Your task to perform on an android device: Search for sushi restaurants on Maps Image 0: 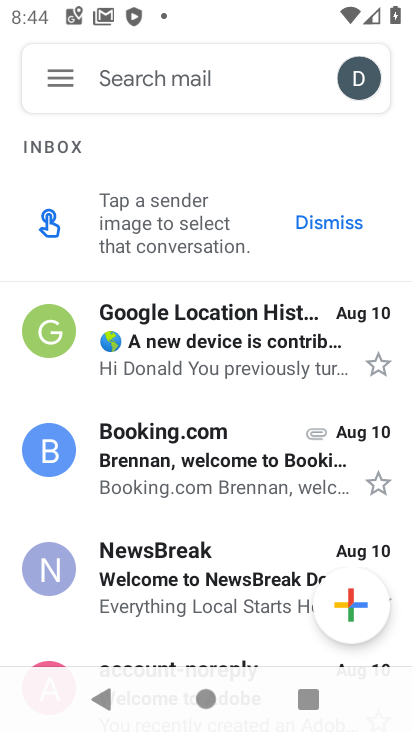
Step 0: press home button
Your task to perform on an android device: Search for sushi restaurants on Maps Image 1: 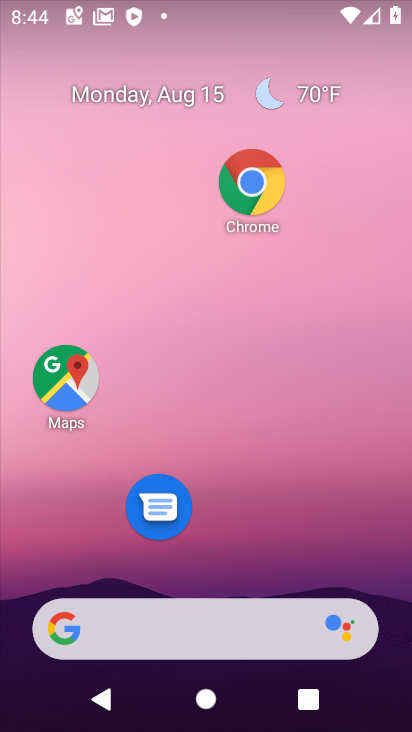
Step 1: drag from (269, 590) to (246, 92)
Your task to perform on an android device: Search for sushi restaurants on Maps Image 2: 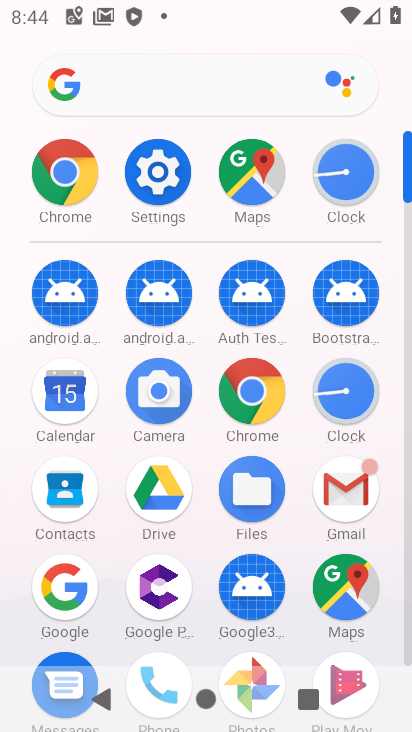
Step 2: click (276, 156)
Your task to perform on an android device: Search for sushi restaurants on Maps Image 3: 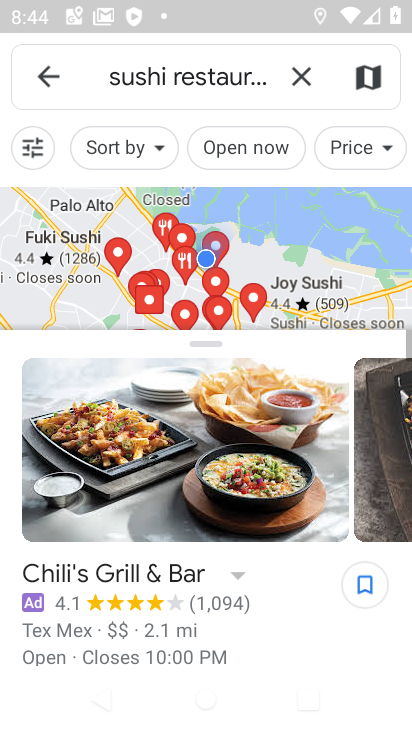
Step 3: click (298, 65)
Your task to perform on an android device: Search for sushi restaurants on Maps Image 4: 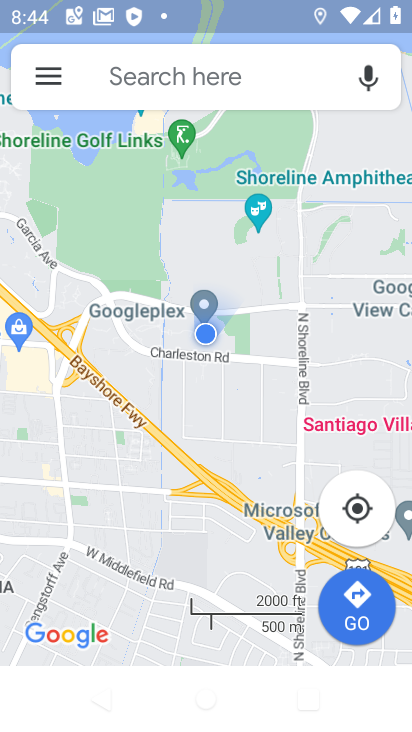
Step 4: click (298, 65)
Your task to perform on an android device: Search for sushi restaurants on Maps Image 5: 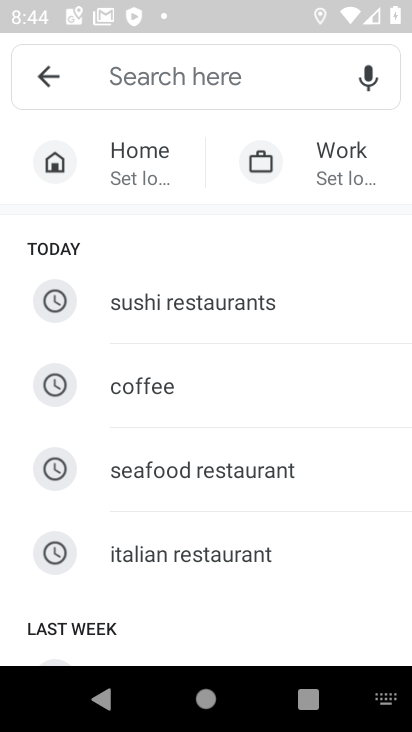
Step 5: click (202, 290)
Your task to perform on an android device: Search for sushi restaurants on Maps Image 6: 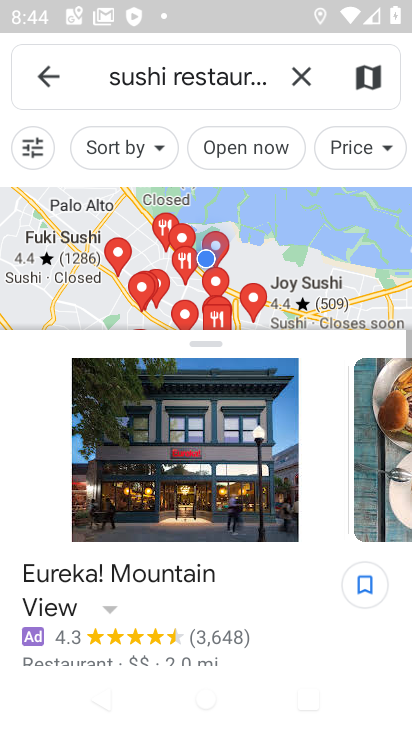
Step 6: task complete